Your task to perform on an android device: clear history in the chrome app Image 0: 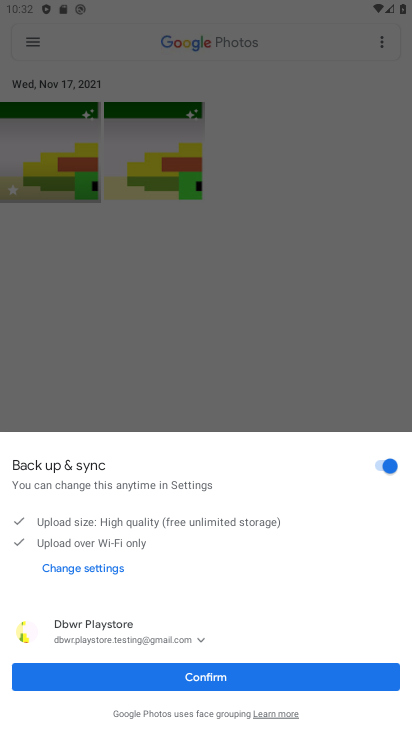
Step 0: click (213, 677)
Your task to perform on an android device: clear history in the chrome app Image 1: 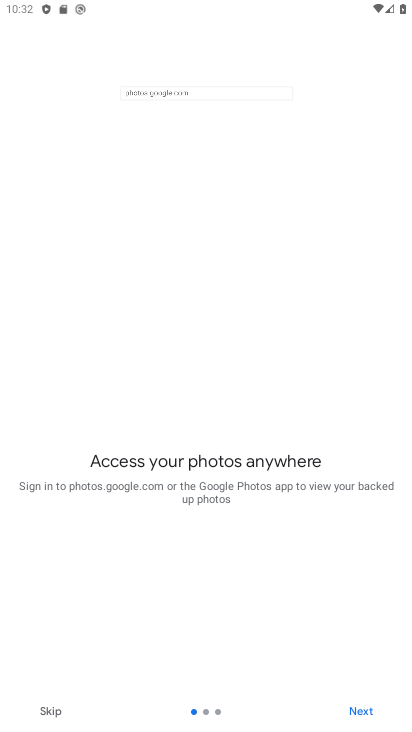
Step 1: press home button
Your task to perform on an android device: clear history in the chrome app Image 2: 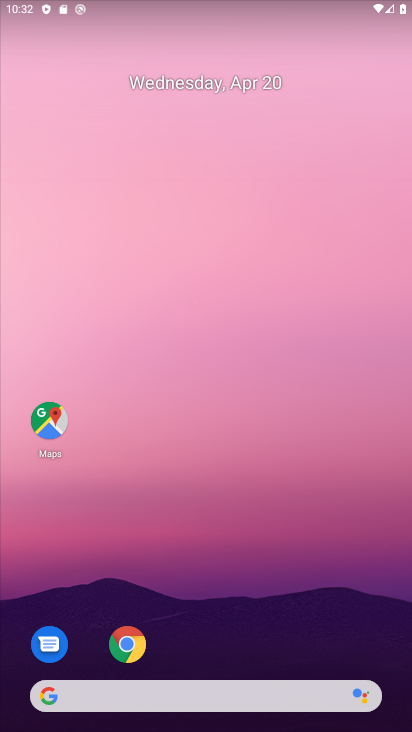
Step 2: click (137, 651)
Your task to perform on an android device: clear history in the chrome app Image 3: 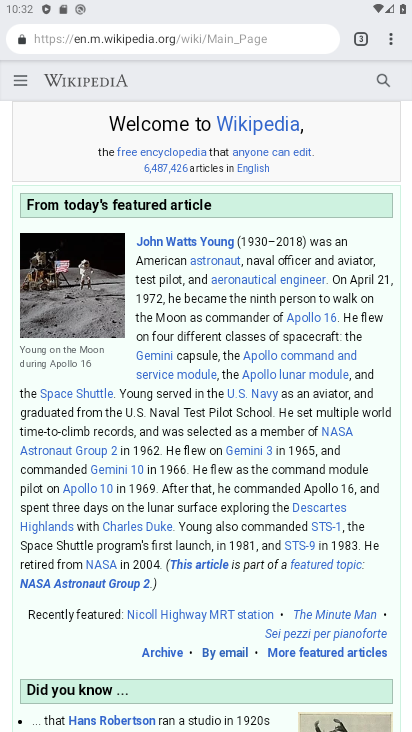
Step 3: click (389, 34)
Your task to perform on an android device: clear history in the chrome app Image 4: 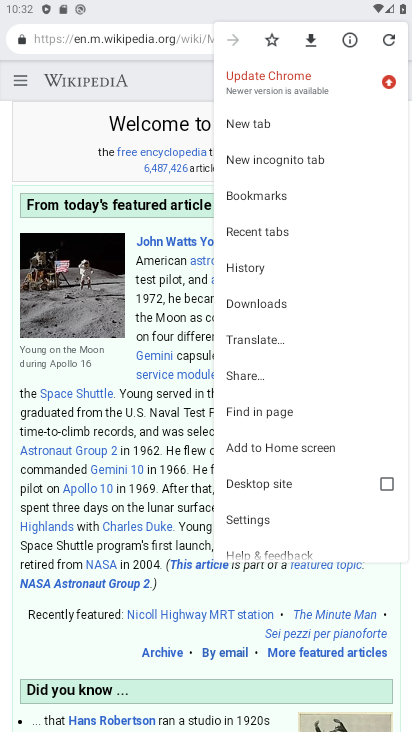
Step 4: click (258, 273)
Your task to perform on an android device: clear history in the chrome app Image 5: 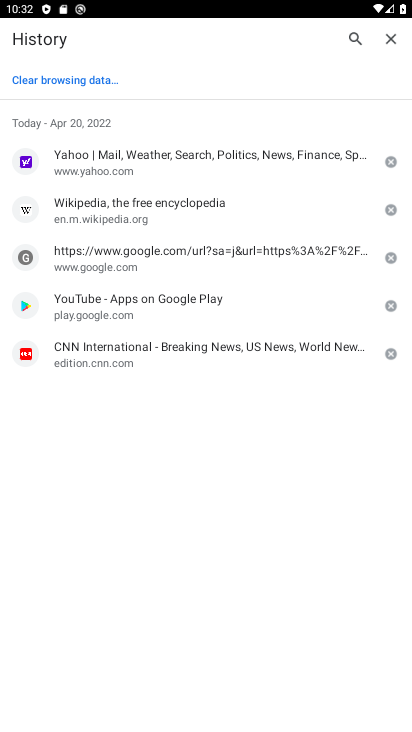
Step 5: click (27, 77)
Your task to perform on an android device: clear history in the chrome app Image 6: 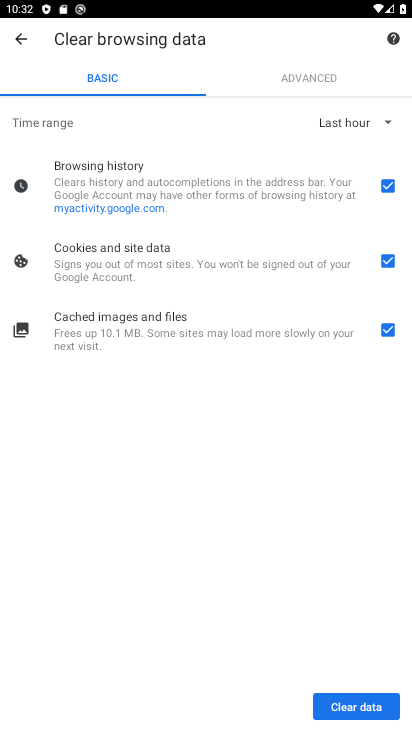
Step 6: click (342, 698)
Your task to perform on an android device: clear history in the chrome app Image 7: 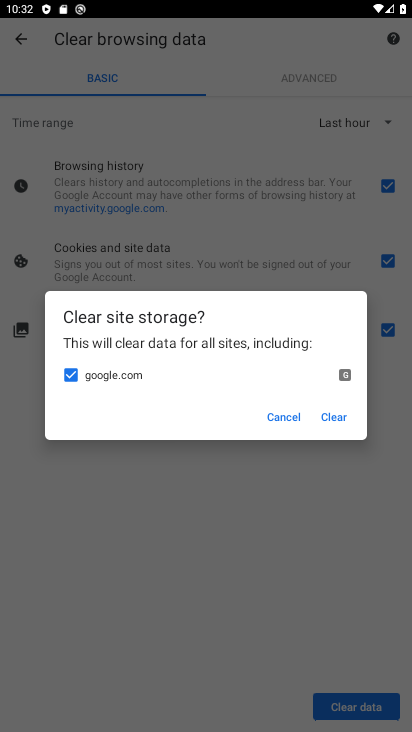
Step 7: click (330, 419)
Your task to perform on an android device: clear history in the chrome app Image 8: 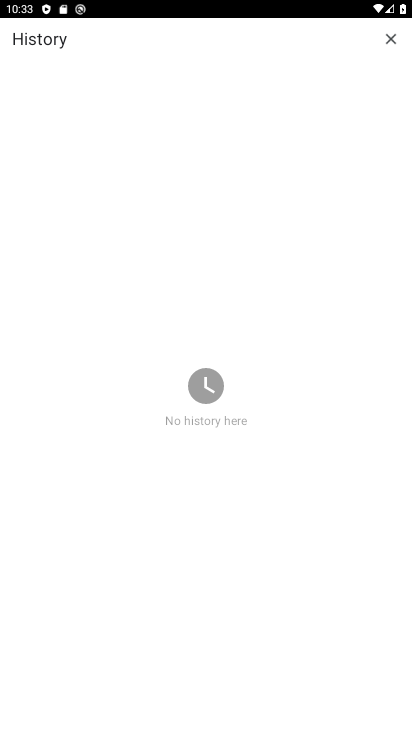
Step 8: task complete